Your task to perform on an android device: check data usage Image 0: 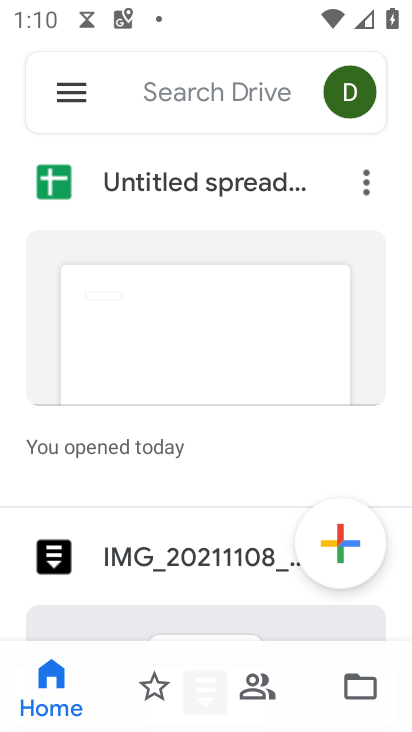
Step 0: press home button
Your task to perform on an android device: check data usage Image 1: 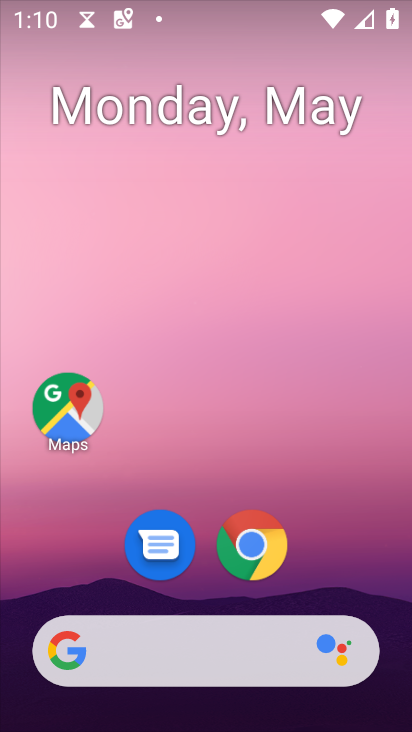
Step 1: drag from (311, 553) to (293, 257)
Your task to perform on an android device: check data usage Image 2: 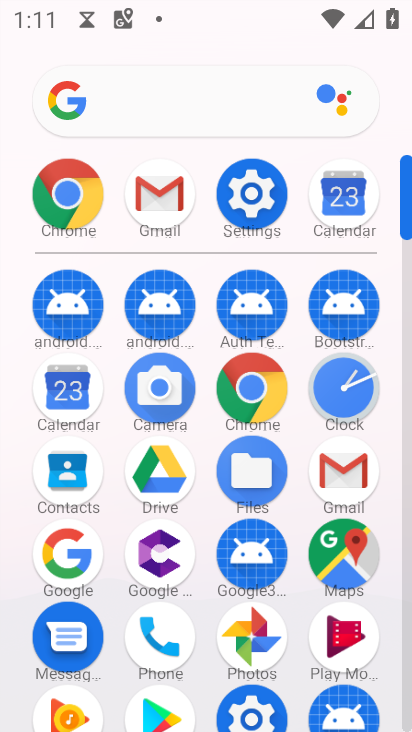
Step 2: click (244, 177)
Your task to perform on an android device: check data usage Image 3: 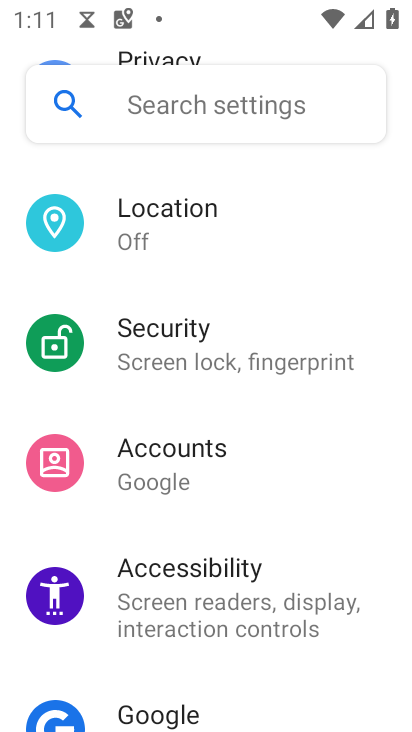
Step 3: drag from (304, 193) to (255, 692)
Your task to perform on an android device: check data usage Image 4: 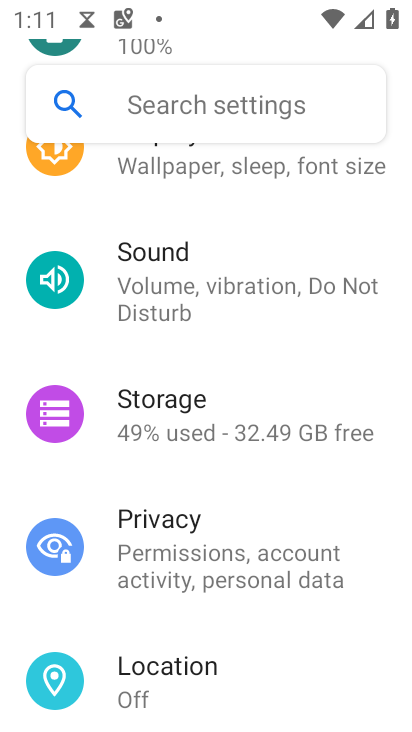
Step 4: drag from (195, 202) to (186, 591)
Your task to perform on an android device: check data usage Image 5: 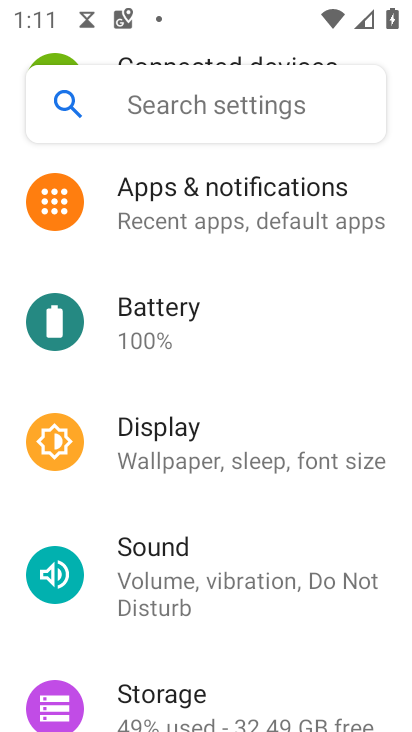
Step 5: drag from (199, 205) to (212, 558)
Your task to perform on an android device: check data usage Image 6: 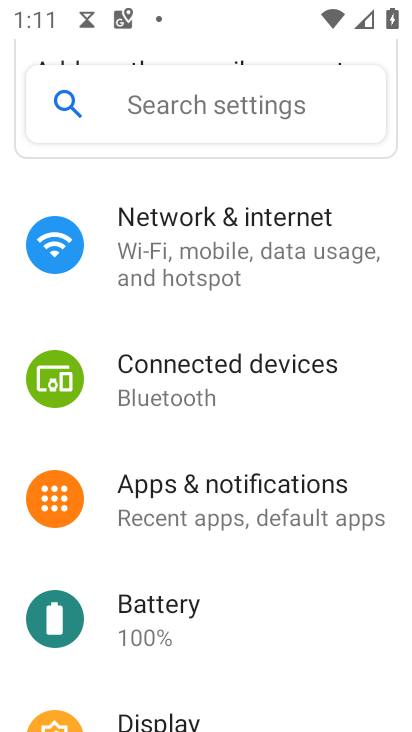
Step 6: click (198, 253)
Your task to perform on an android device: check data usage Image 7: 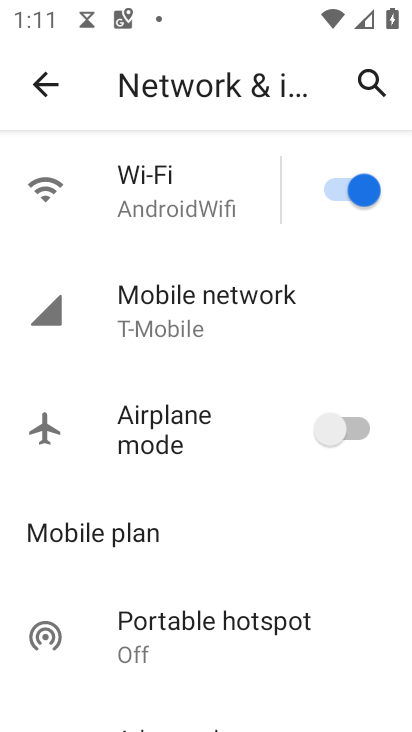
Step 7: task complete